Your task to perform on an android device: Turn on the flashlight Image 0: 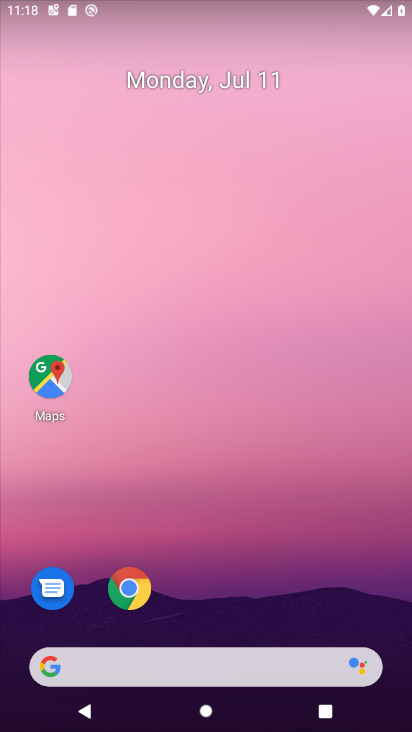
Step 0: click (105, 62)
Your task to perform on an android device: Turn on the flashlight Image 1: 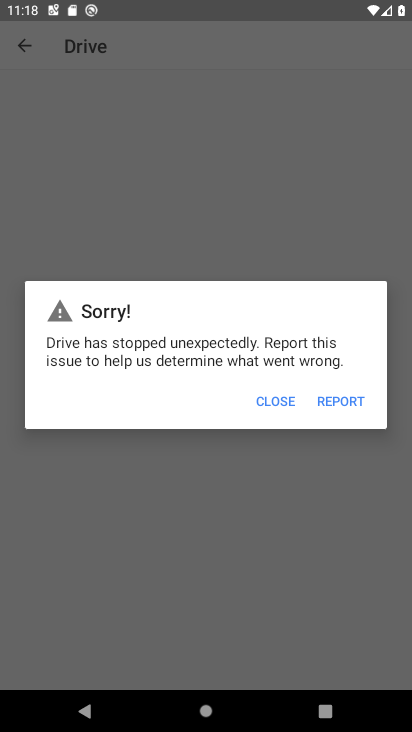
Step 1: drag from (266, 479) to (242, 177)
Your task to perform on an android device: Turn on the flashlight Image 2: 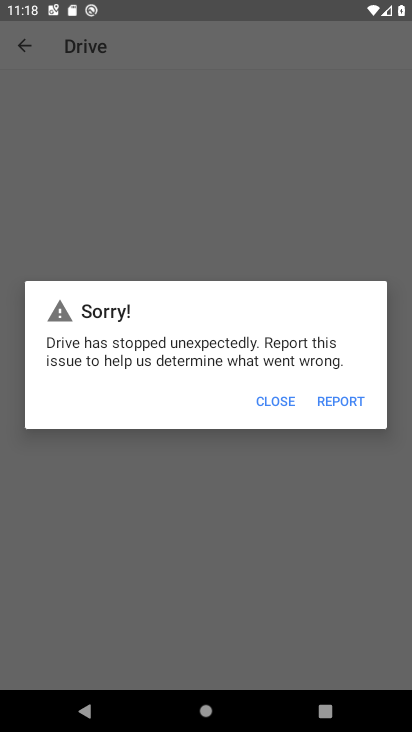
Step 2: click (268, 399)
Your task to perform on an android device: Turn on the flashlight Image 3: 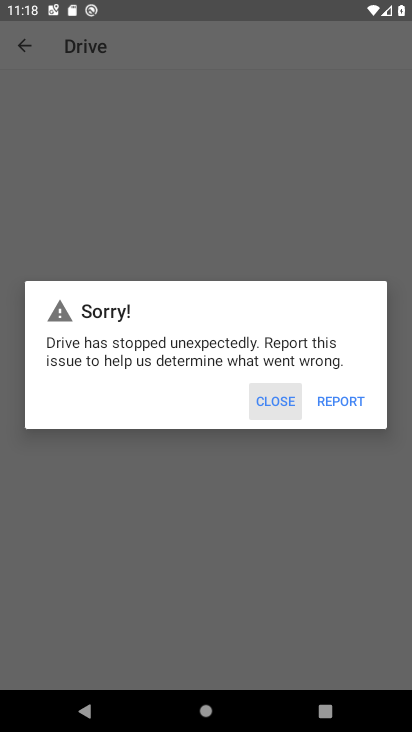
Step 3: click (269, 399)
Your task to perform on an android device: Turn on the flashlight Image 4: 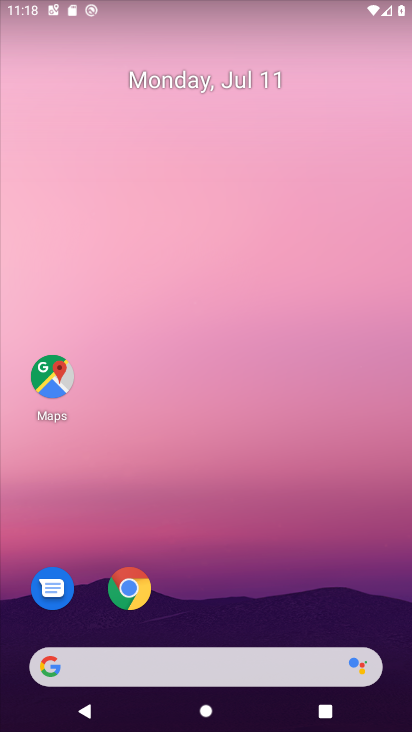
Step 4: task complete